Your task to perform on an android device: Open my contact list Image 0: 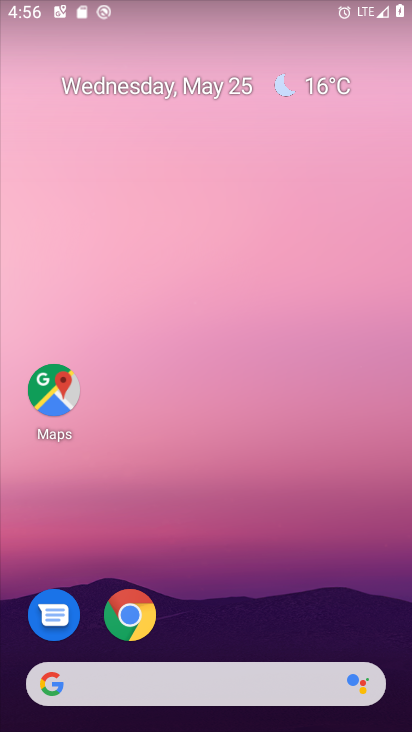
Step 0: drag from (292, 593) to (207, 17)
Your task to perform on an android device: Open my contact list Image 1: 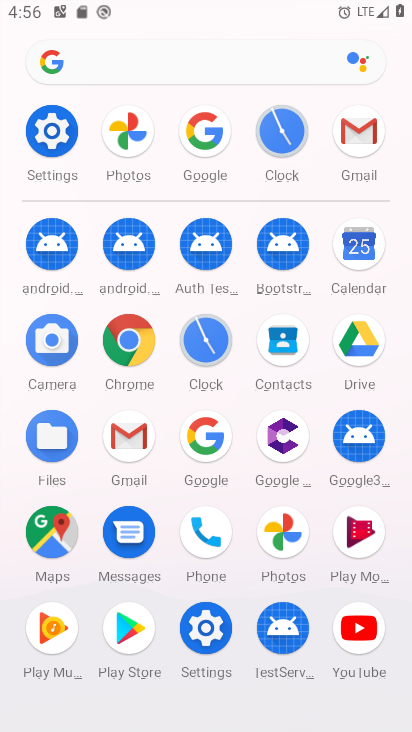
Step 1: click (285, 337)
Your task to perform on an android device: Open my contact list Image 2: 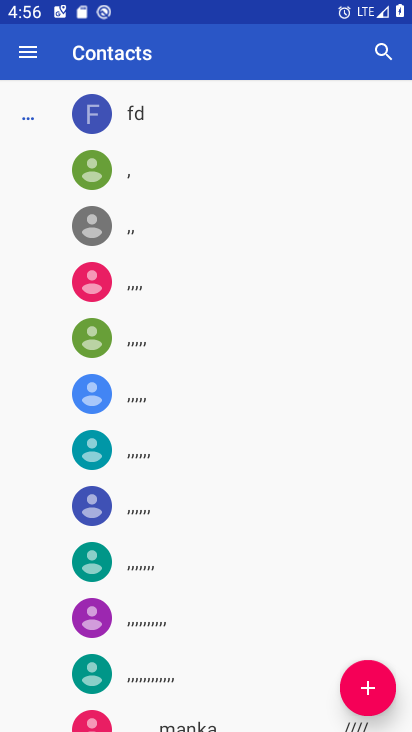
Step 2: task complete